Your task to perform on an android device: Go to Yahoo.com Image 0: 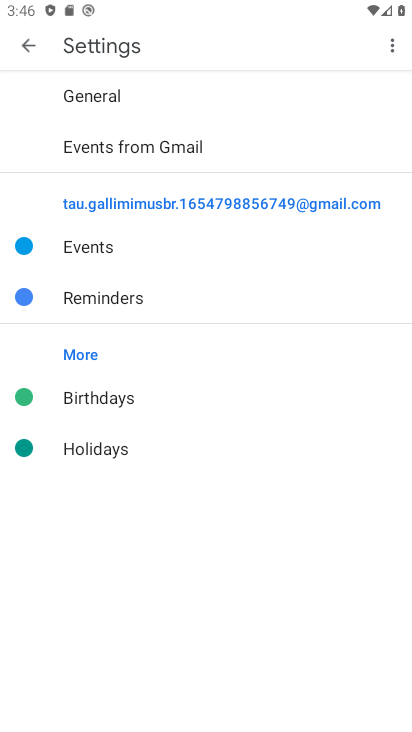
Step 0: press home button
Your task to perform on an android device: Go to Yahoo.com Image 1: 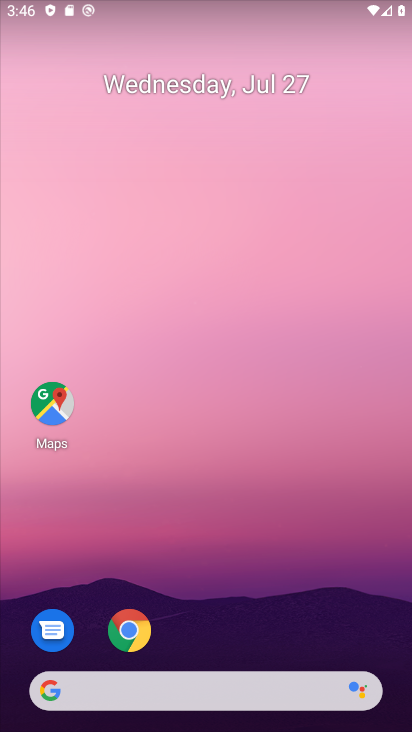
Step 1: click (125, 623)
Your task to perform on an android device: Go to Yahoo.com Image 2: 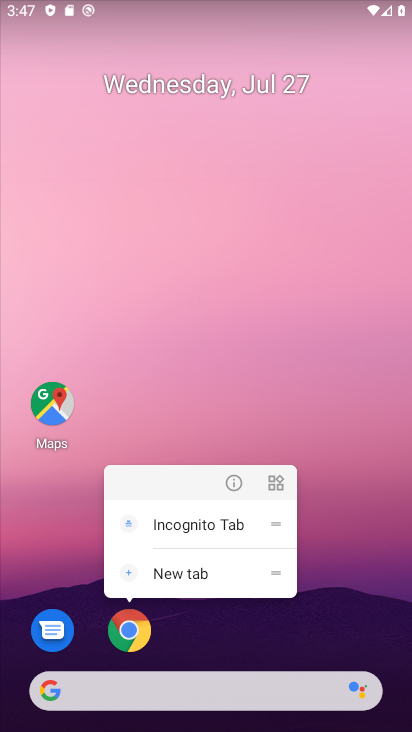
Step 2: click (123, 623)
Your task to perform on an android device: Go to Yahoo.com Image 3: 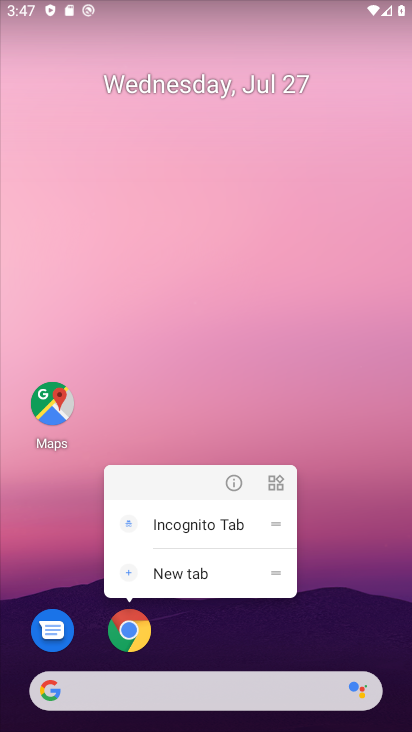
Step 3: click (127, 621)
Your task to perform on an android device: Go to Yahoo.com Image 4: 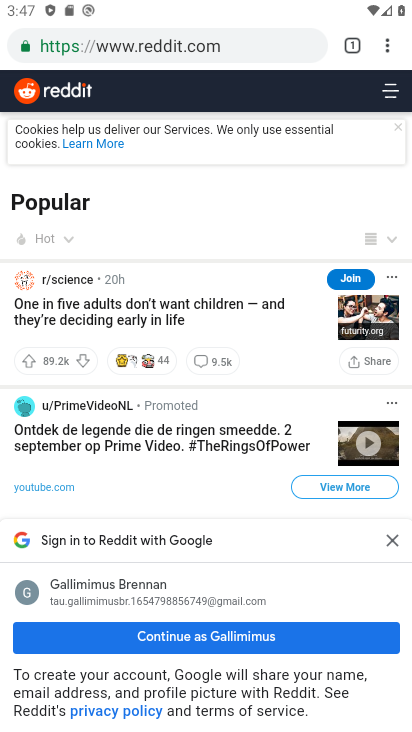
Step 4: click (351, 41)
Your task to perform on an android device: Go to Yahoo.com Image 5: 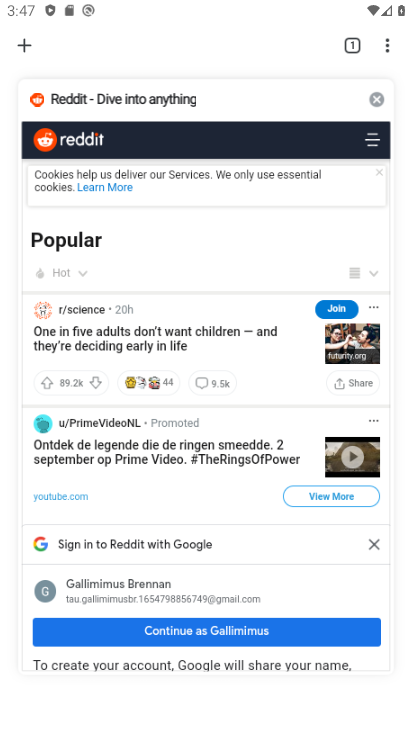
Step 5: click (19, 49)
Your task to perform on an android device: Go to Yahoo.com Image 6: 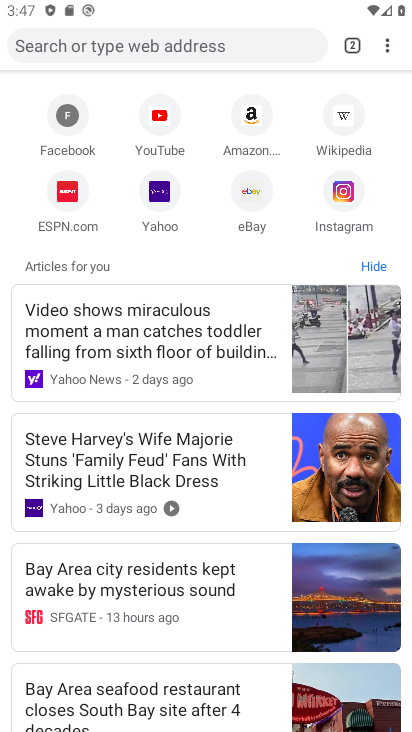
Step 6: click (156, 195)
Your task to perform on an android device: Go to Yahoo.com Image 7: 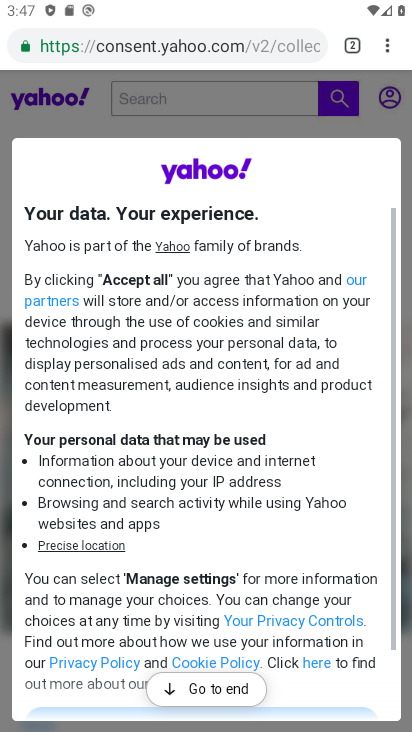
Step 7: drag from (214, 615) to (216, 123)
Your task to perform on an android device: Go to Yahoo.com Image 8: 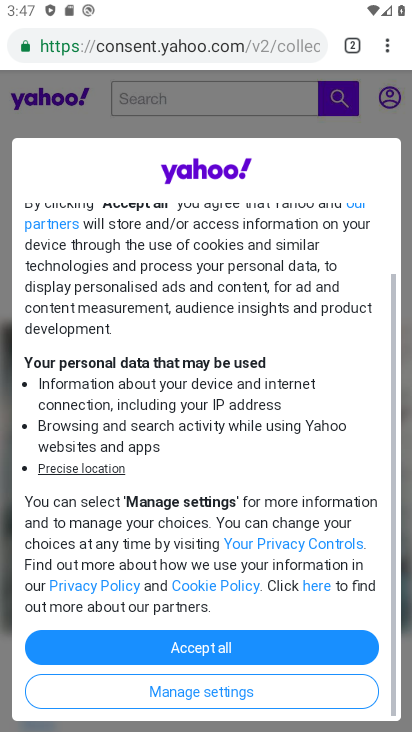
Step 8: click (213, 649)
Your task to perform on an android device: Go to Yahoo.com Image 9: 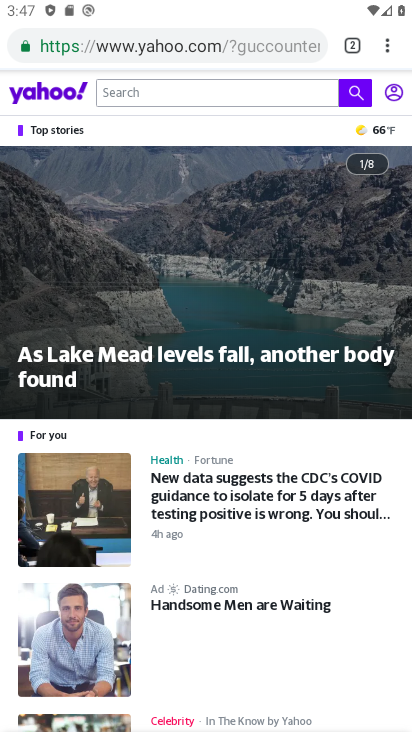
Step 9: task complete